Your task to perform on an android device: Is it going to rain today? Image 0: 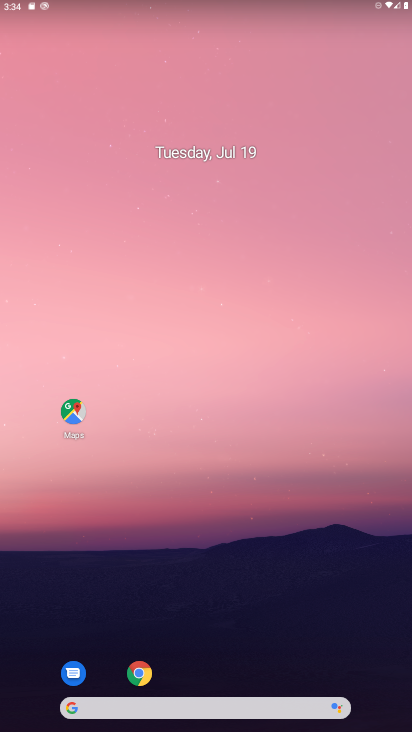
Step 0: click (201, 704)
Your task to perform on an android device: Is it going to rain today? Image 1: 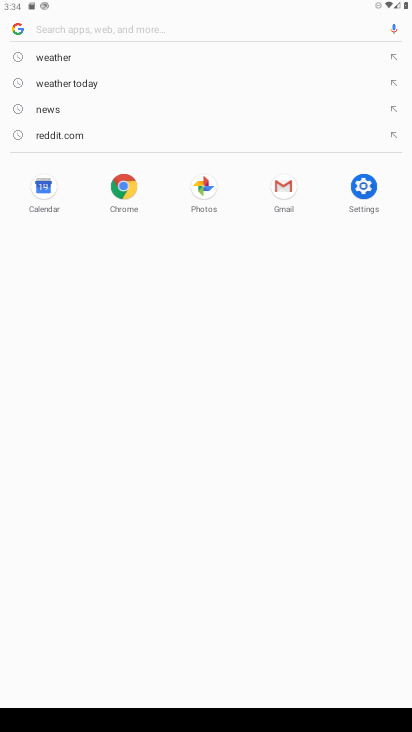
Step 1: click (45, 54)
Your task to perform on an android device: Is it going to rain today? Image 2: 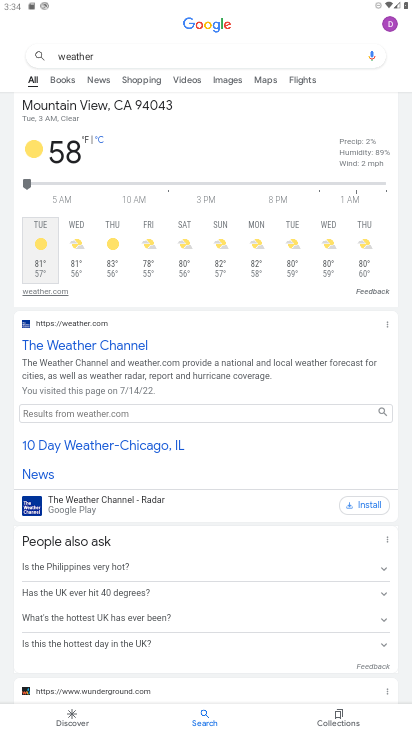
Step 2: task complete